Your task to perform on an android device: Go to CNN.com Image 0: 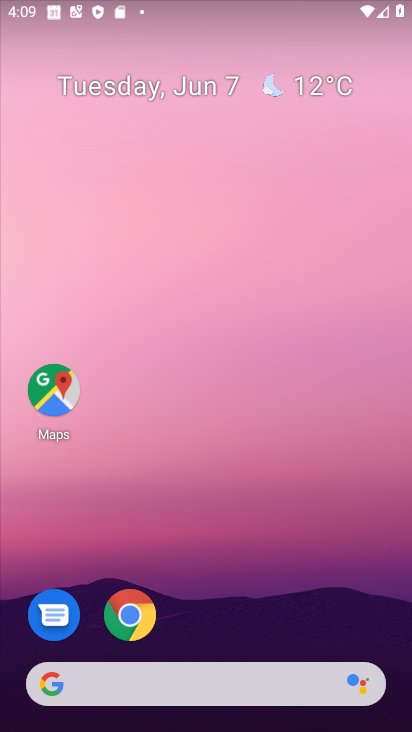
Step 0: click (126, 617)
Your task to perform on an android device: Go to CNN.com Image 1: 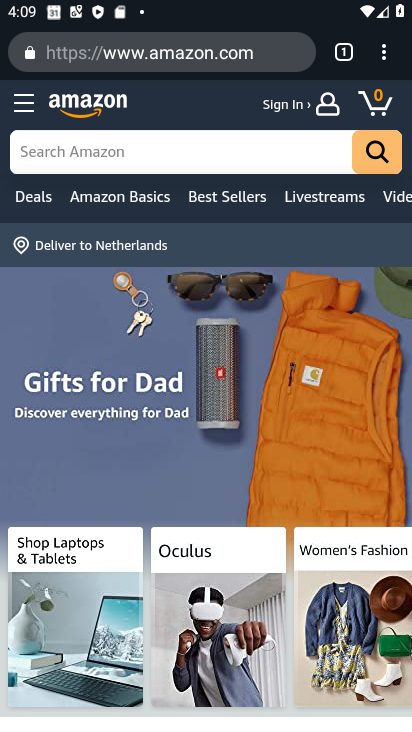
Step 1: click (205, 46)
Your task to perform on an android device: Go to CNN.com Image 2: 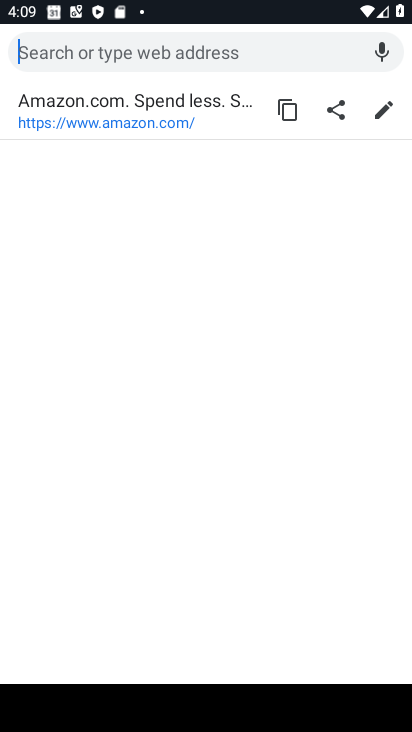
Step 2: type "cnn,com"
Your task to perform on an android device: Go to CNN.com Image 3: 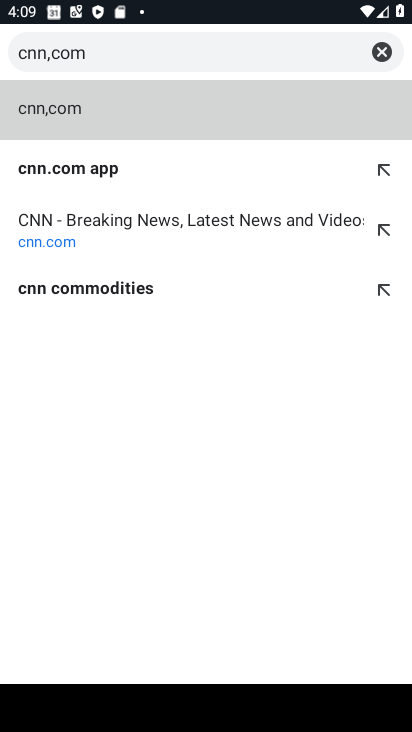
Step 3: click (123, 106)
Your task to perform on an android device: Go to CNN.com Image 4: 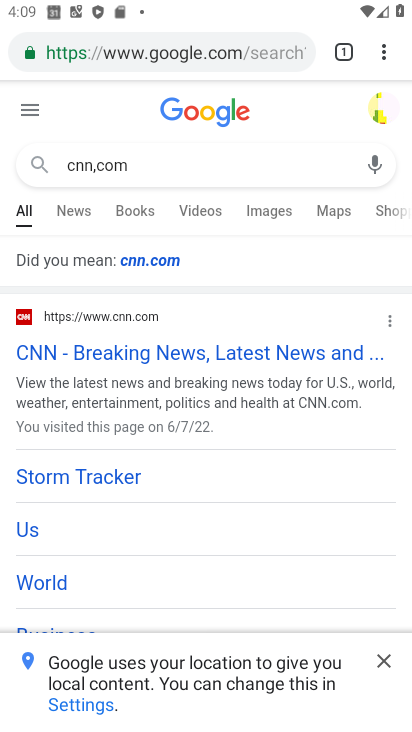
Step 4: click (165, 343)
Your task to perform on an android device: Go to CNN.com Image 5: 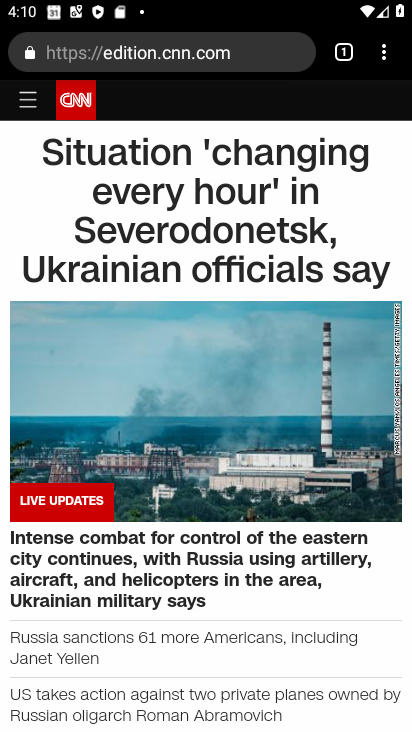
Step 5: task complete